Your task to perform on an android device: Open the map Image 0: 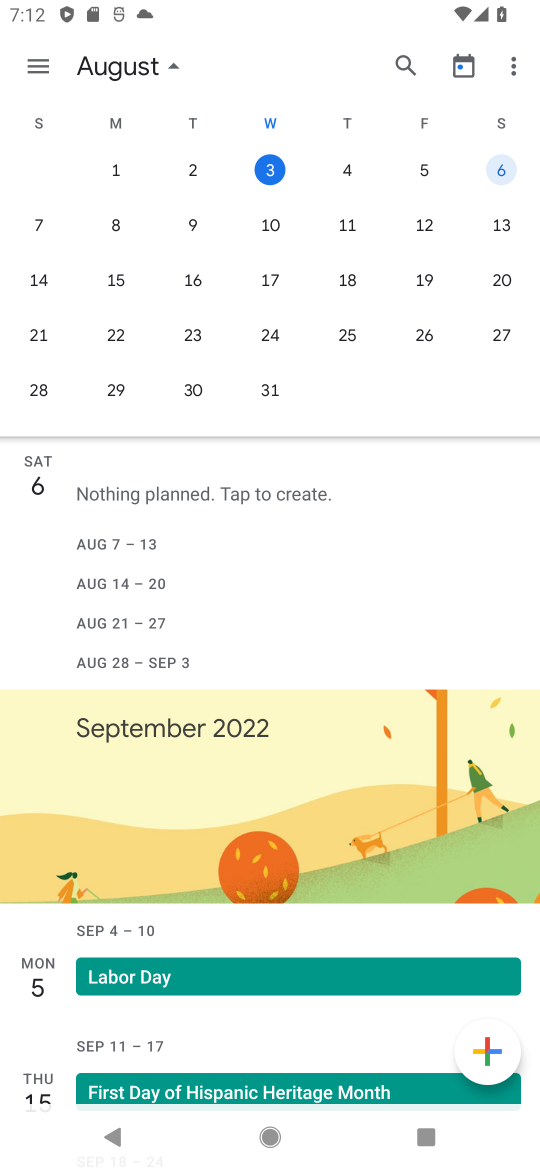
Step 0: press home button
Your task to perform on an android device: Open the map Image 1: 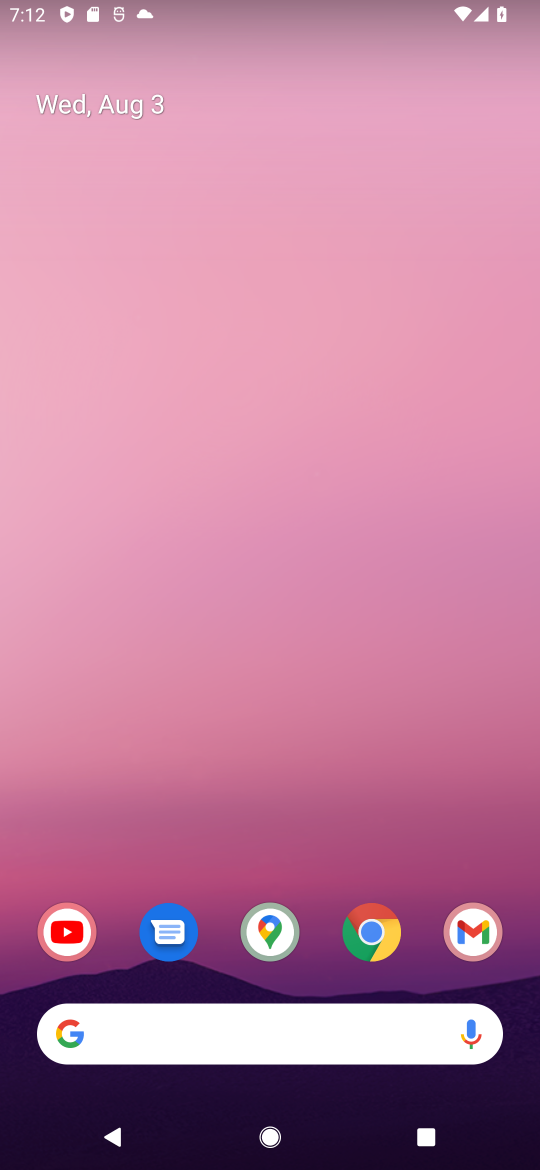
Step 1: click (274, 938)
Your task to perform on an android device: Open the map Image 2: 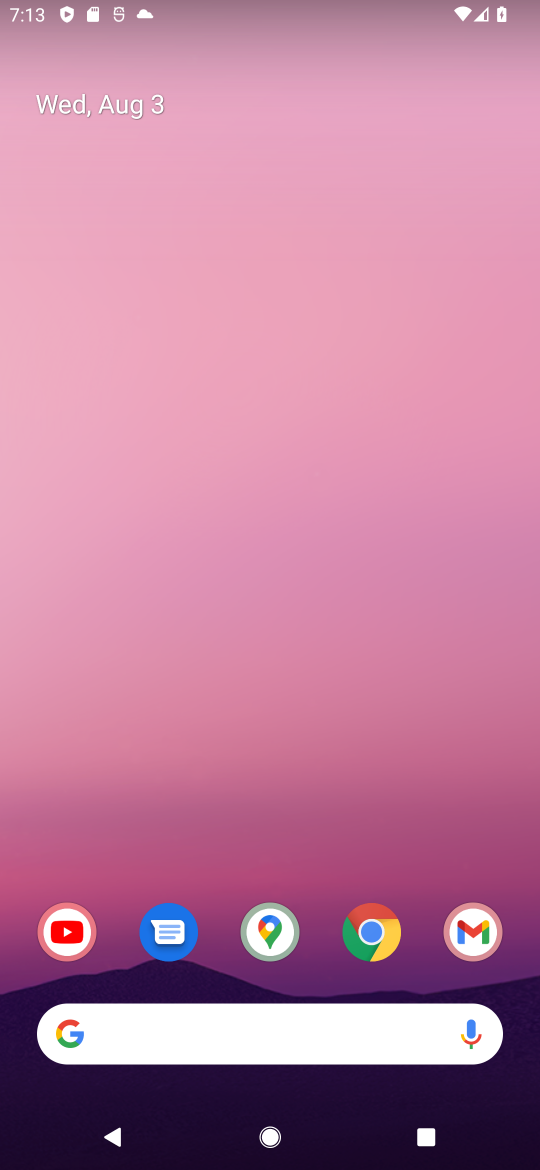
Step 2: click (292, 937)
Your task to perform on an android device: Open the map Image 3: 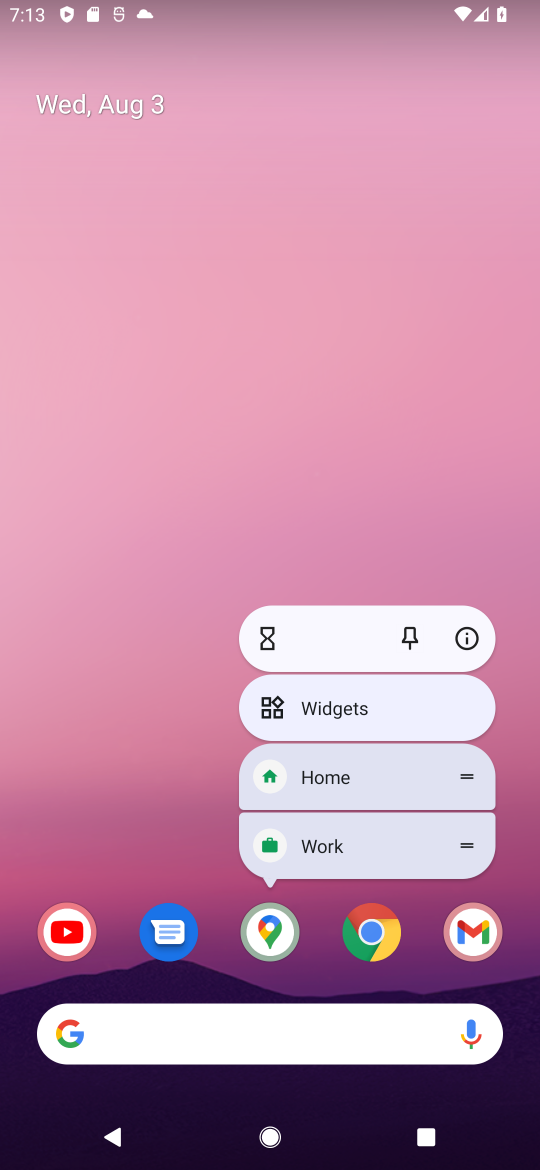
Step 3: click (292, 937)
Your task to perform on an android device: Open the map Image 4: 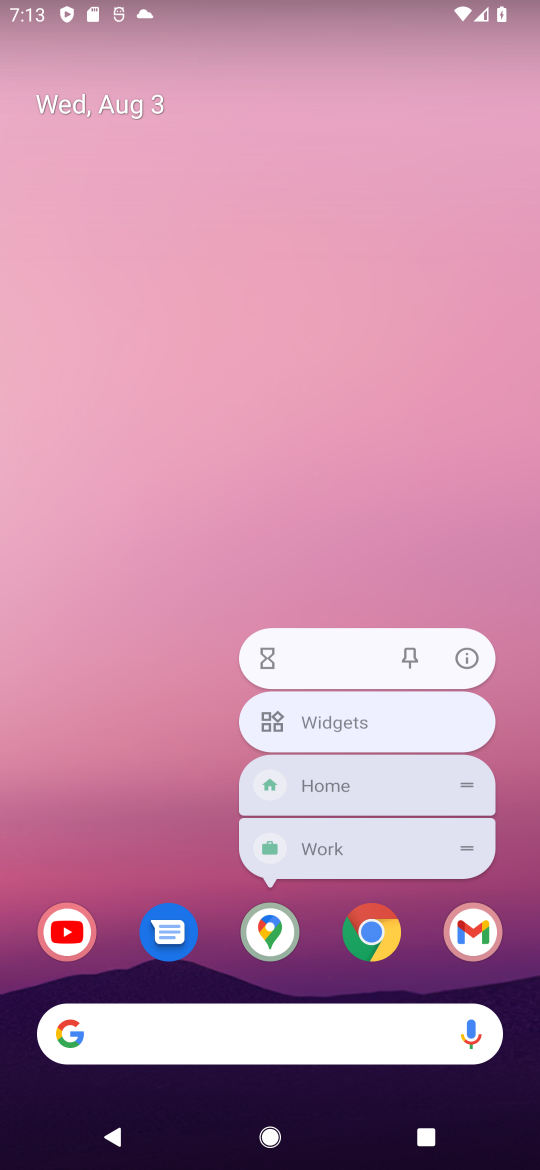
Step 4: click (292, 937)
Your task to perform on an android device: Open the map Image 5: 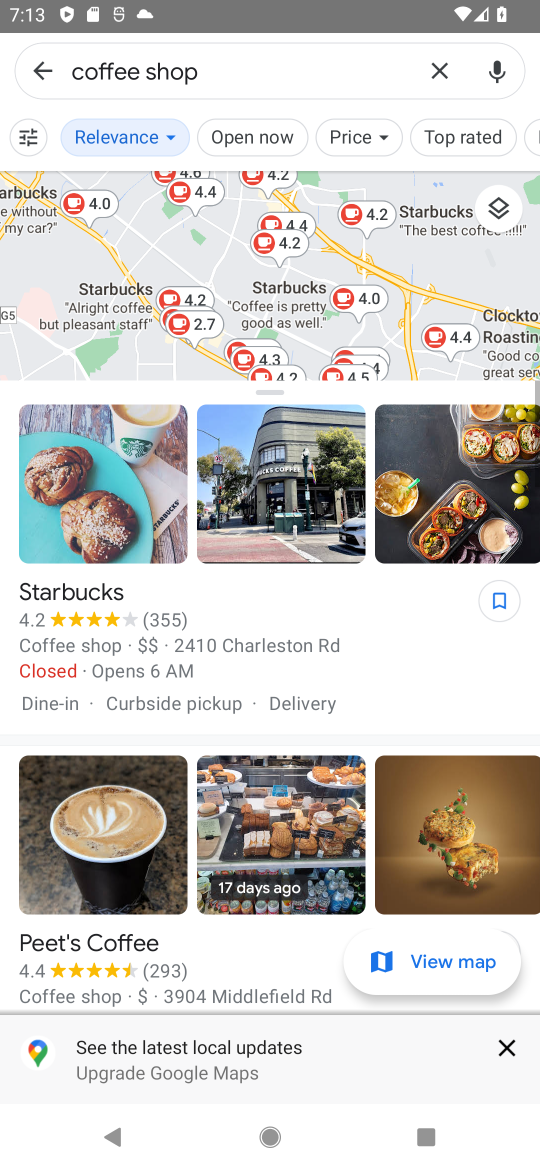
Step 5: task complete